Your task to perform on an android device: toggle notification dots Image 0: 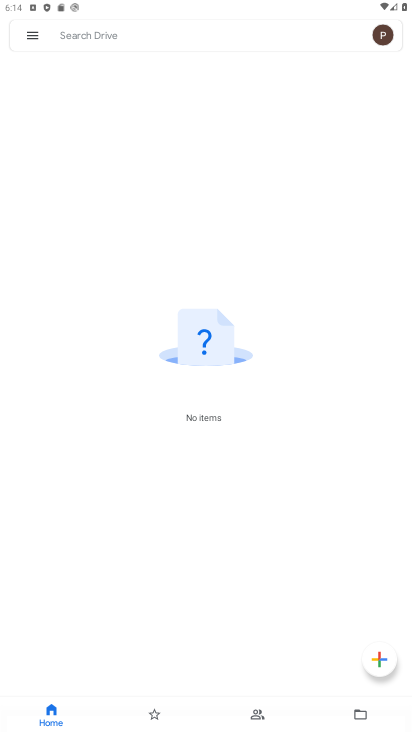
Step 0: press home button
Your task to perform on an android device: toggle notification dots Image 1: 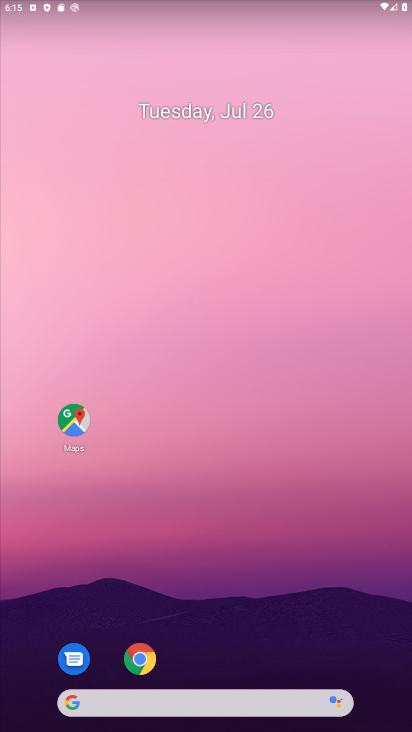
Step 1: drag from (275, 585) to (284, 352)
Your task to perform on an android device: toggle notification dots Image 2: 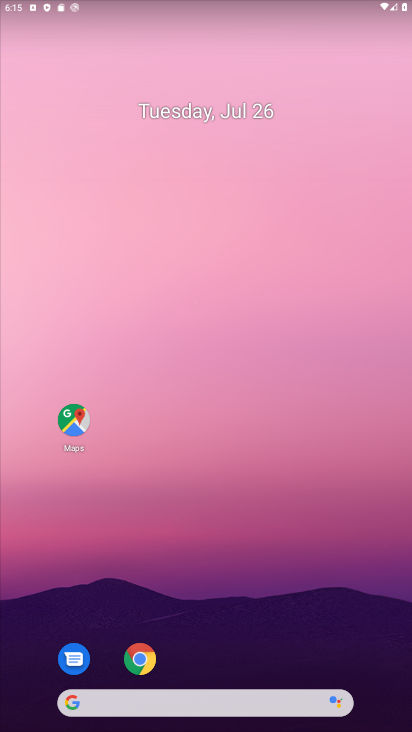
Step 2: drag from (257, 483) to (324, 51)
Your task to perform on an android device: toggle notification dots Image 3: 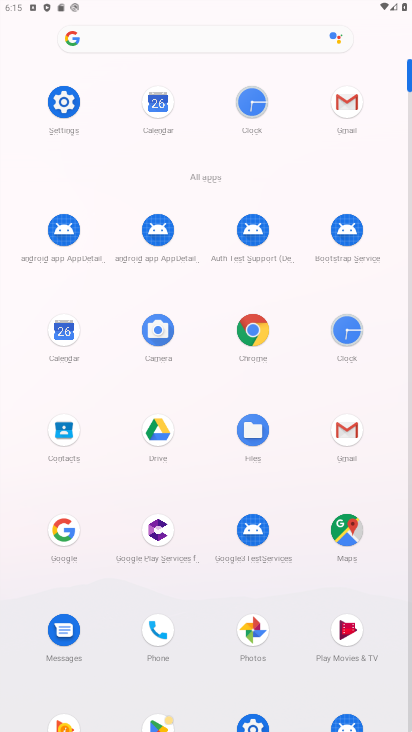
Step 3: click (60, 93)
Your task to perform on an android device: toggle notification dots Image 4: 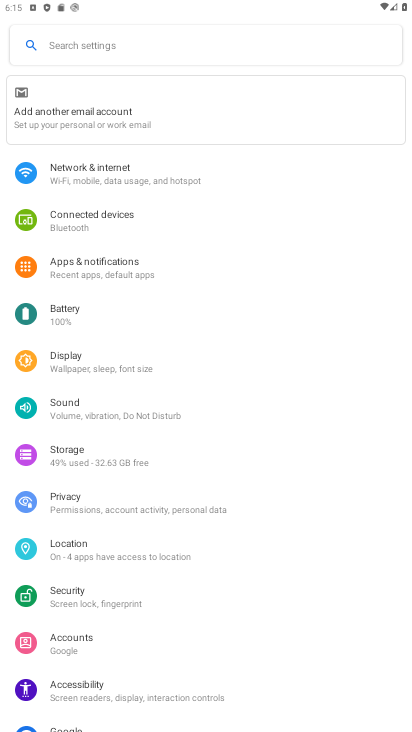
Step 4: task complete